Your task to perform on an android device: Open accessibility settings Image 0: 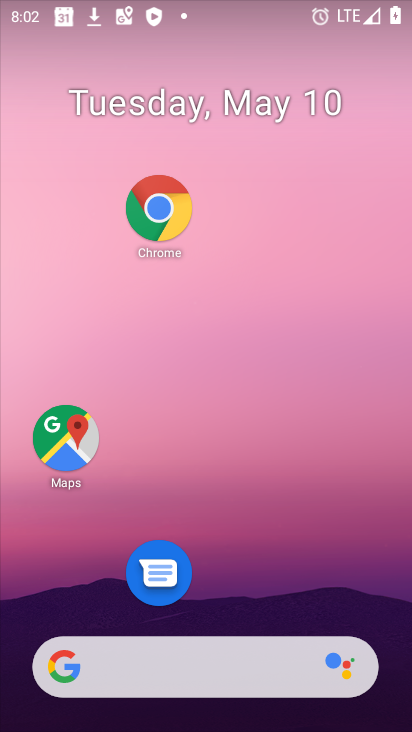
Step 0: drag from (265, 714) to (334, 322)
Your task to perform on an android device: Open accessibility settings Image 1: 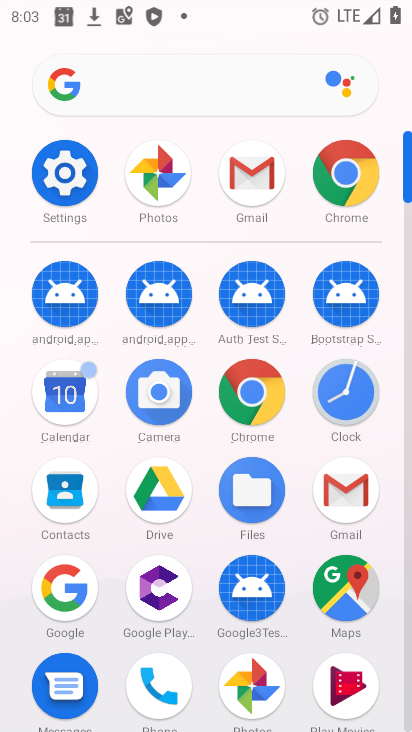
Step 1: click (80, 162)
Your task to perform on an android device: Open accessibility settings Image 2: 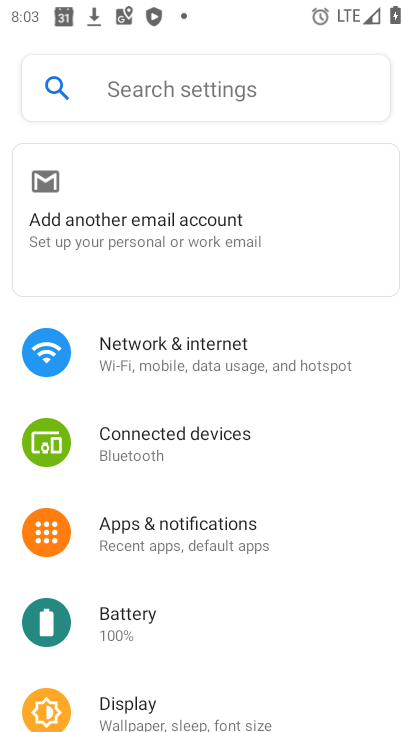
Step 2: click (134, 82)
Your task to perform on an android device: Open accessibility settings Image 3: 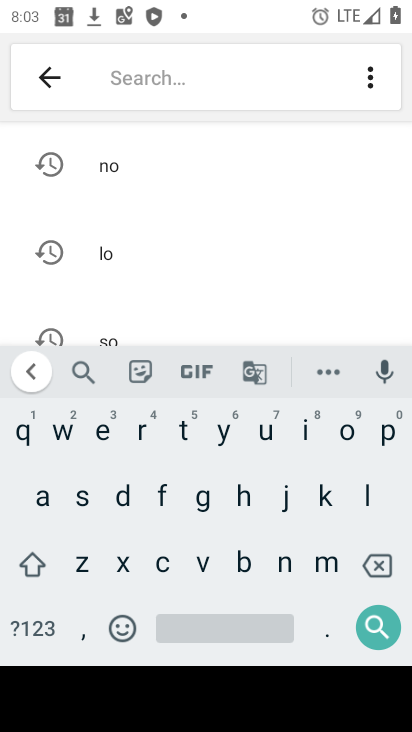
Step 3: click (36, 500)
Your task to perform on an android device: Open accessibility settings Image 4: 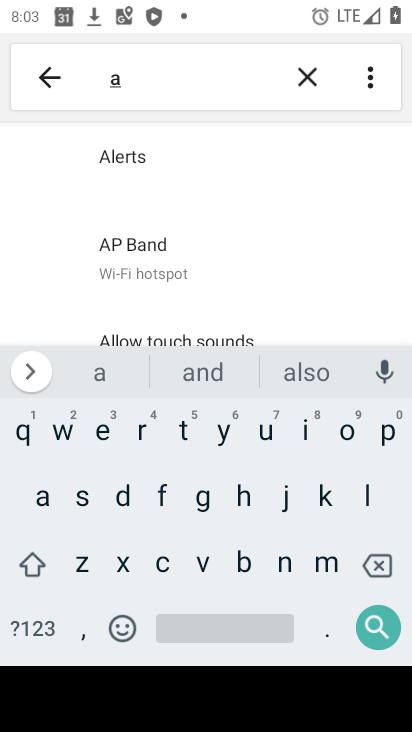
Step 4: click (157, 561)
Your task to perform on an android device: Open accessibility settings Image 5: 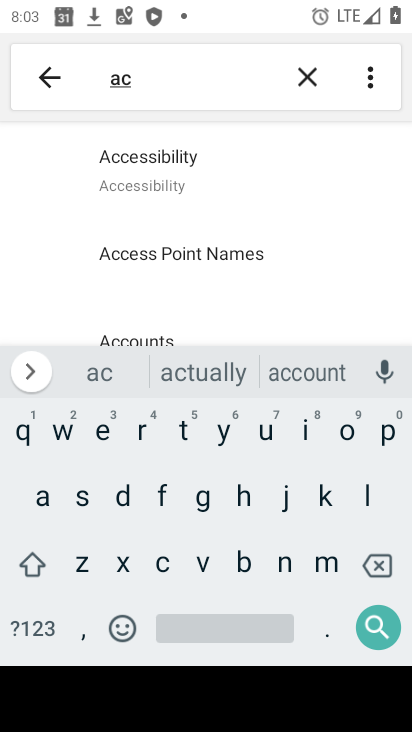
Step 5: click (190, 191)
Your task to perform on an android device: Open accessibility settings Image 6: 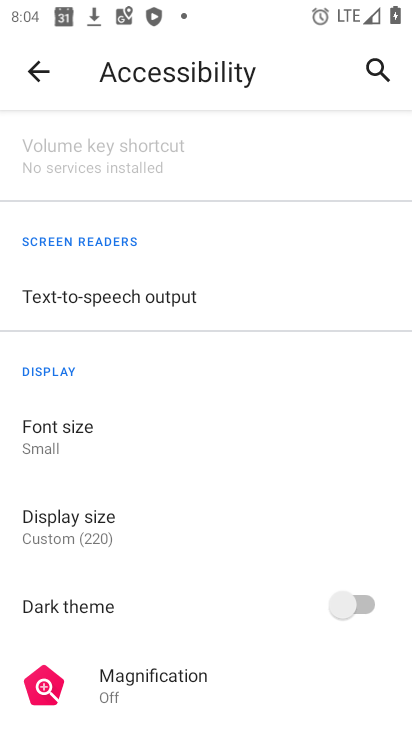
Step 6: task complete